Your task to perform on an android device: Open the phone app and click the voicemail tab. Image 0: 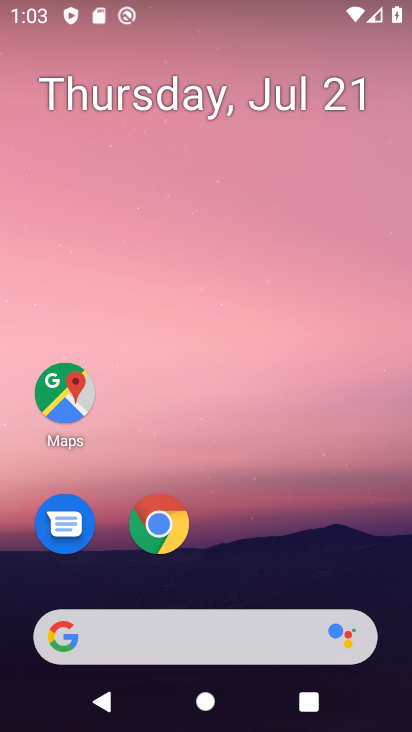
Step 0: drag from (255, 530) to (288, 47)
Your task to perform on an android device: Open the phone app and click the voicemail tab. Image 1: 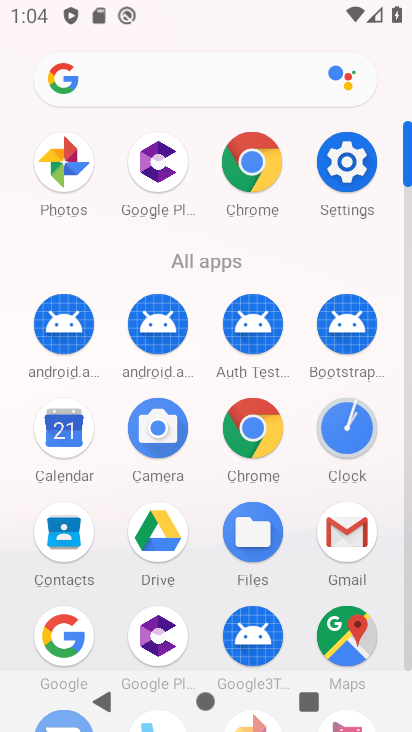
Step 1: drag from (227, 468) to (241, 193)
Your task to perform on an android device: Open the phone app and click the voicemail tab. Image 2: 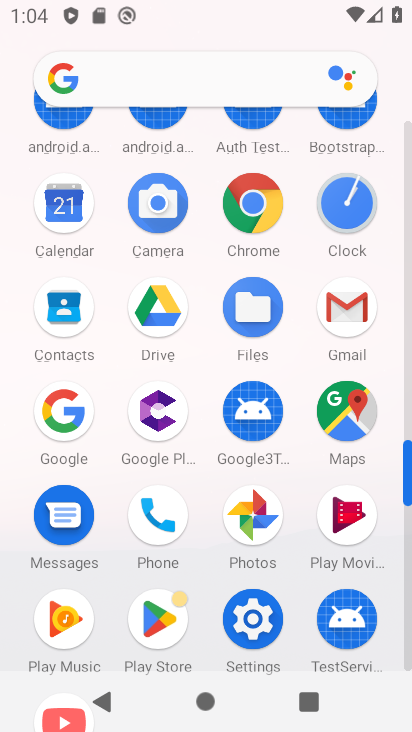
Step 2: click (166, 508)
Your task to perform on an android device: Open the phone app and click the voicemail tab. Image 3: 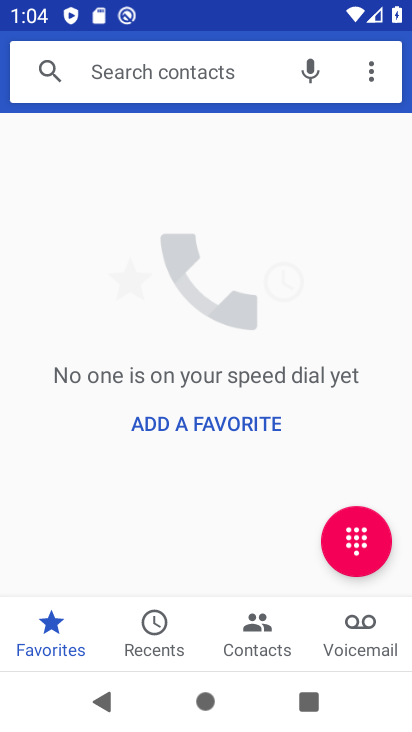
Step 3: click (378, 635)
Your task to perform on an android device: Open the phone app and click the voicemail tab. Image 4: 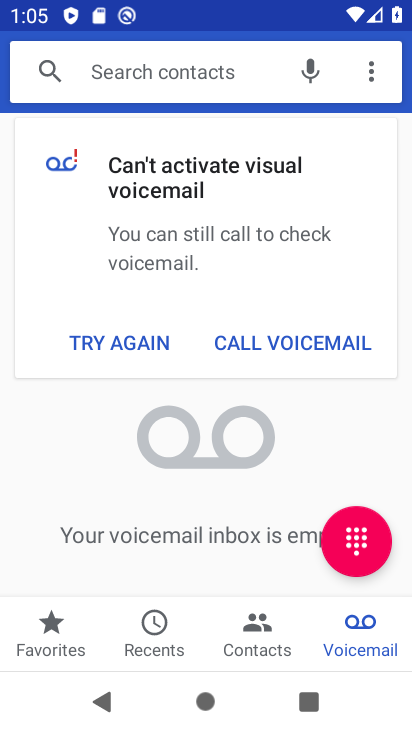
Step 4: task complete